Your task to perform on an android device: change timer sound Image 0: 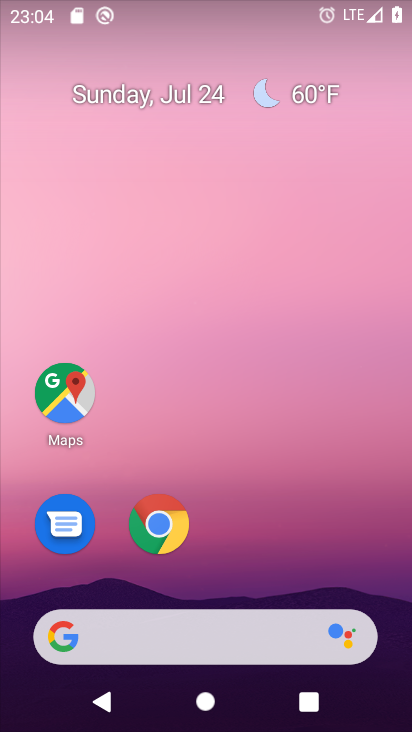
Step 0: drag from (264, 546) to (303, 12)
Your task to perform on an android device: change timer sound Image 1: 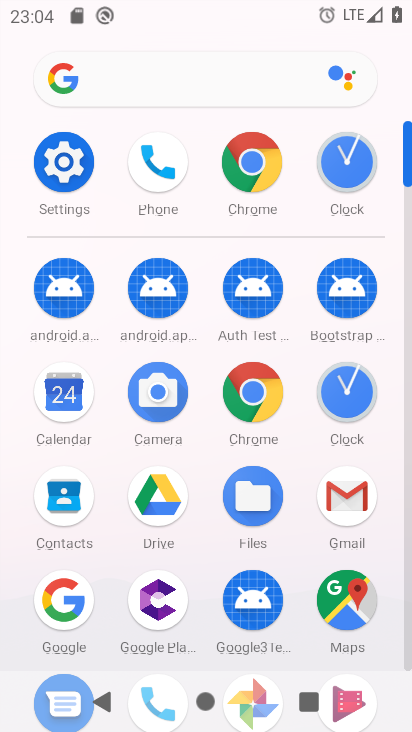
Step 1: click (349, 160)
Your task to perform on an android device: change timer sound Image 2: 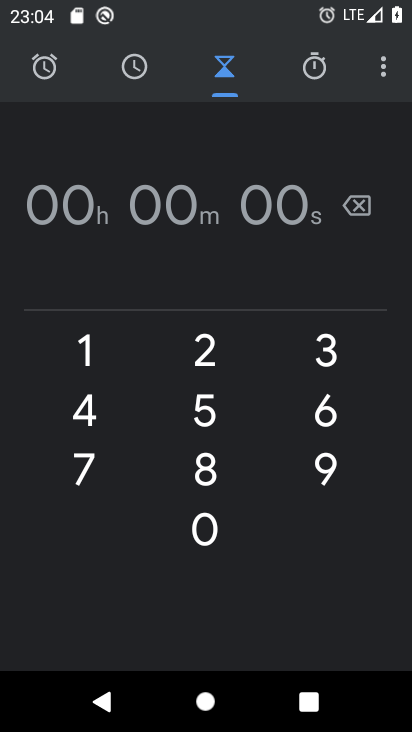
Step 2: click (381, 60)
Your task to perform on an android device: change timer sound Image 3: 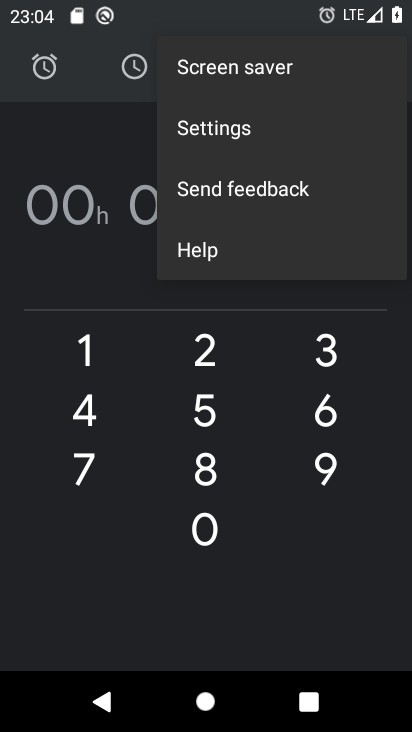
Step 3: click (236, 124)
Your task to perform on an android device: change timer sound Image 4: 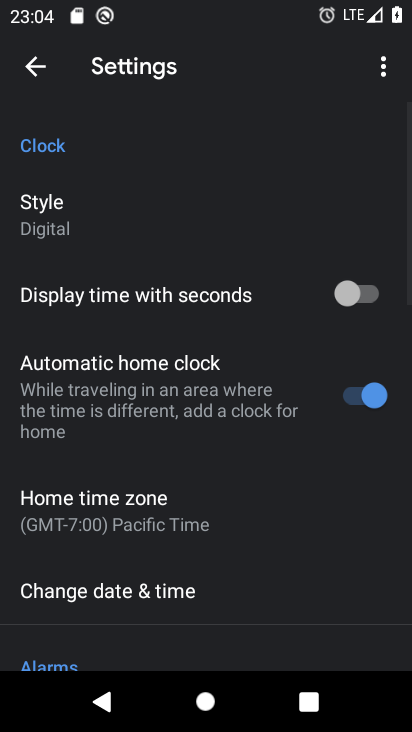
Step 4: drag from (182, 490) to (225, 0)
Your task to perform on an android device: change timer sound Image 5: 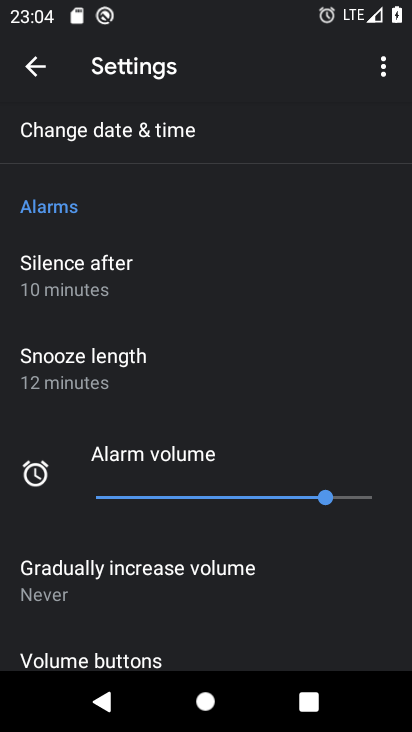
Step 5: drag from (206, 326) to (239, 24)
Your task to perform on an android device: change timer sound Image 6: 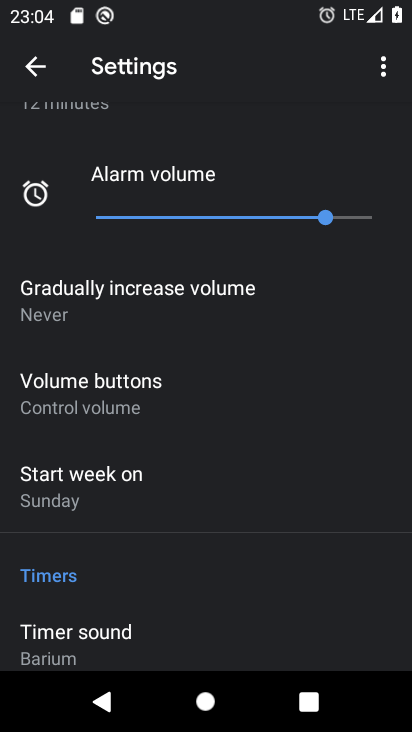
Step 6: drag from (168, 392) to (208, 38)
Your task to perform on an android device: change timer sound Image 7: 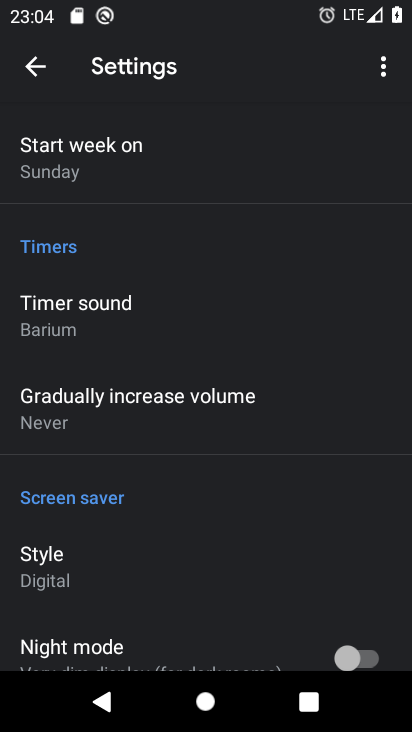
Step 7: click (115, 306)
Your task to perform on an android device: change timer sound Image 8: 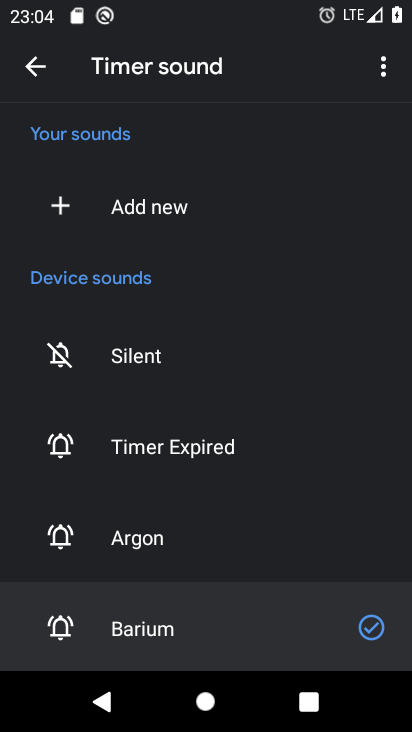
Step 8: click (111, 533)
Your task to perform on an android device: change timer sound Image 9: 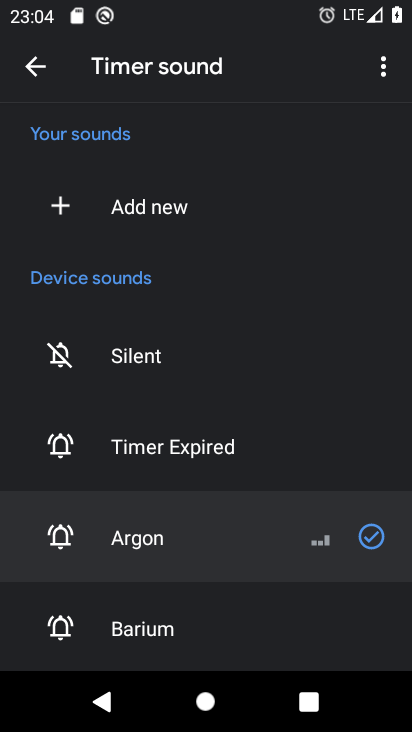
Step 9: task complete